Your task to perform on an android device: change the clock style Image 0: 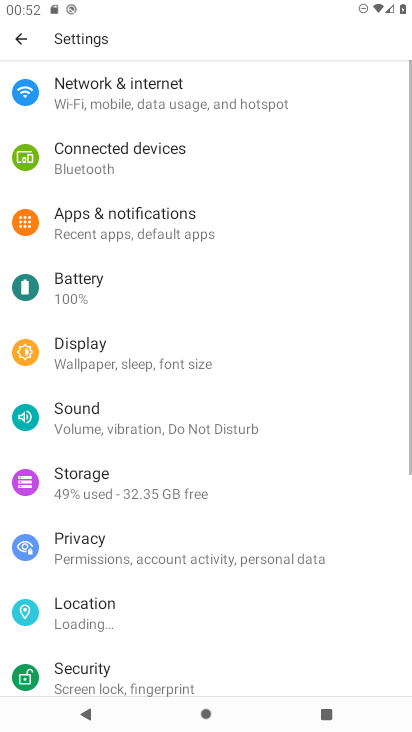
Step 0: press home button
Your task to perform on an android device: change the clock style Image 1: 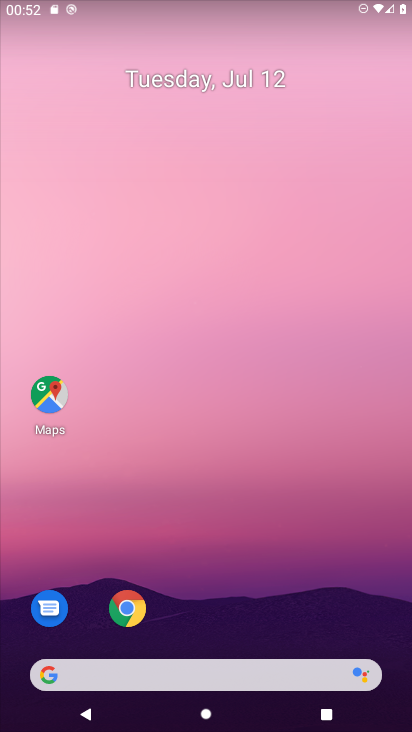
Step 1: drag from (171, 641) to (141, 155)
Your task to perform on an android device: change the clock style Image 2: 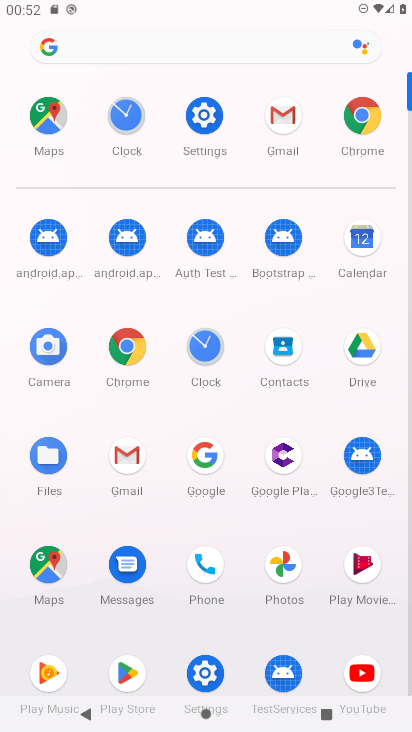
Step 2: click (213, 348)
Your task to perform on an android device: change the clock style Image 3: 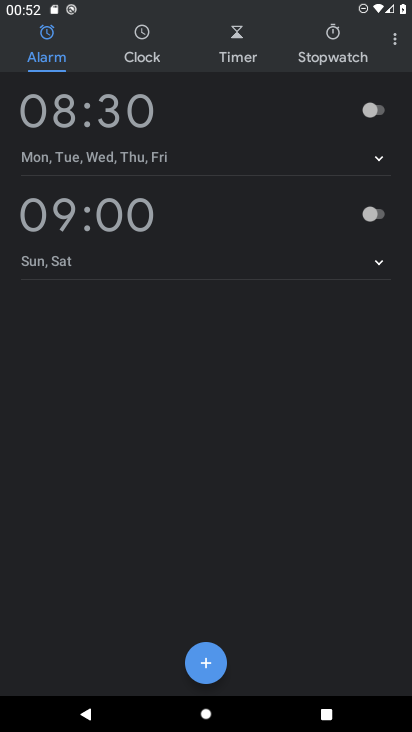
Step 3: drag from (398, 39) to (333, 82)
Your task to perform on an android device: change the clock style Image 4: 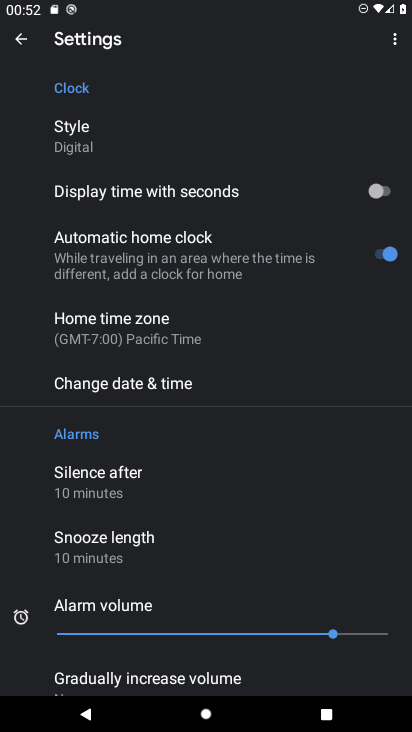
Step 4: click (83, 127)
Your task to perform on an android device: change the clock style Image 5: 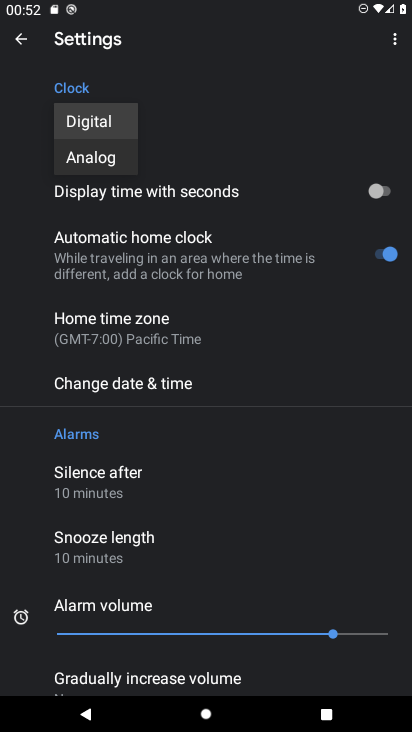
Step 5: click (100, 164)
Your task to perform on an android device: change the clock style Image 6: 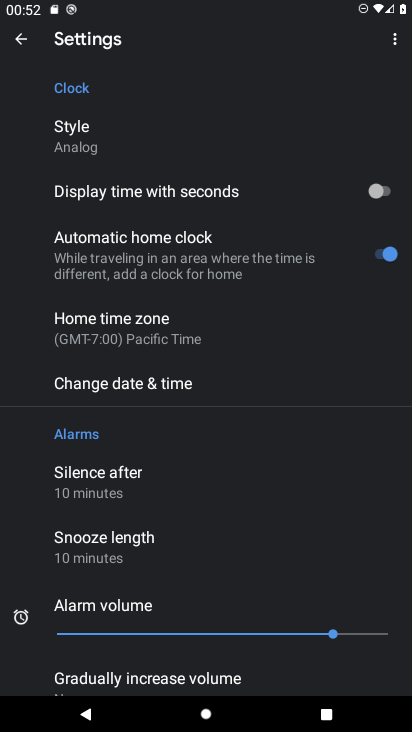
Step 6: task complete